Your task to perform on an android device: check google app version Image 0: 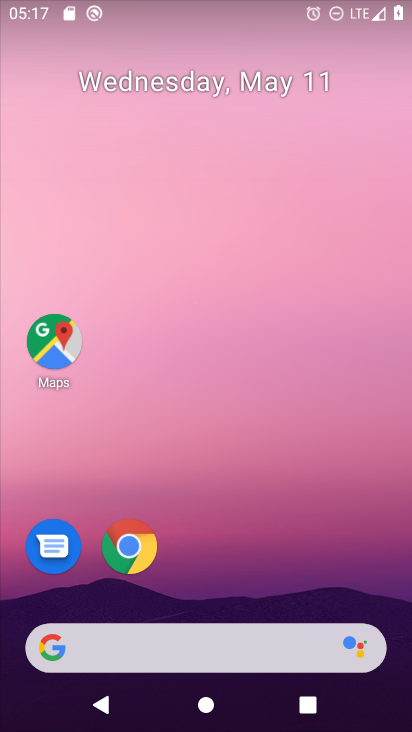
Step 0: drag from (320, 647) to (365, 4)
Your task to perform on an android device: check google app version Image 1: 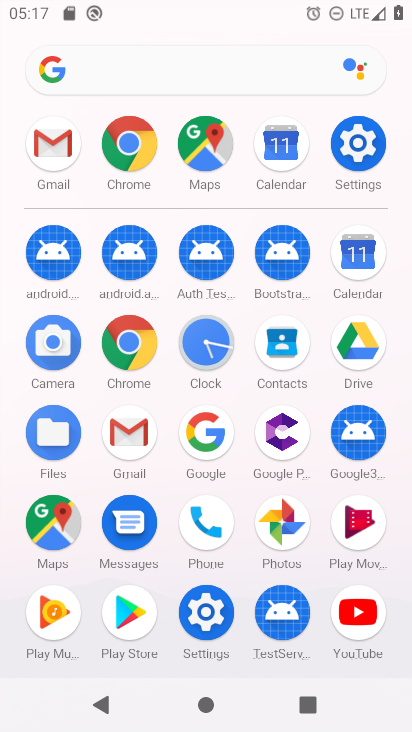
Step 1: click (357, 149)
Your task to perform on an android device: check google app version Image 2: 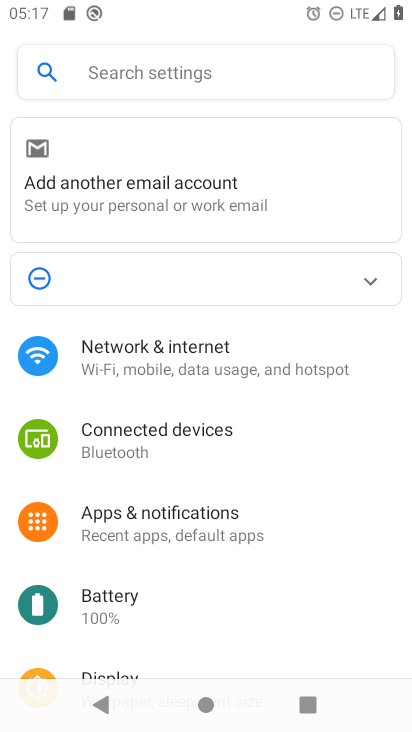
Step 2: drag from (298, 593) to (344, 198)
Your task to perform on an android device: check google app version Image 3: 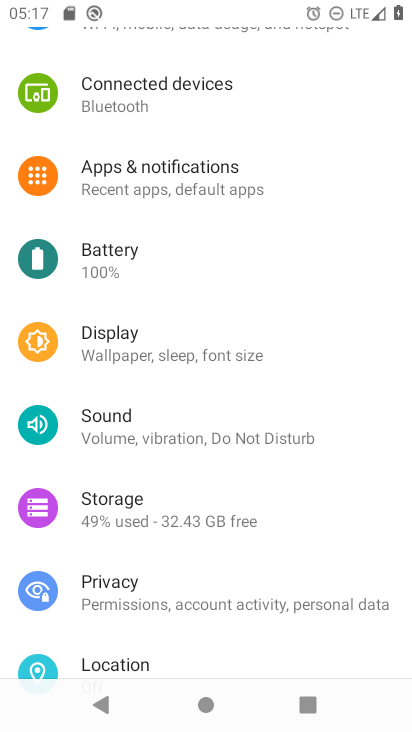
Step 3: press home button
Your task to perform on an android device: check google app version Image 4: 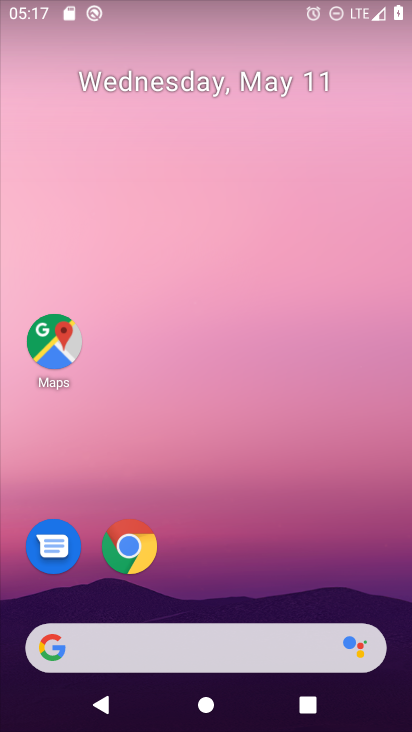
Step 4: drag from (276, 647) to (349, 4)
Your task to perform on an android device: check google app version Image 5: 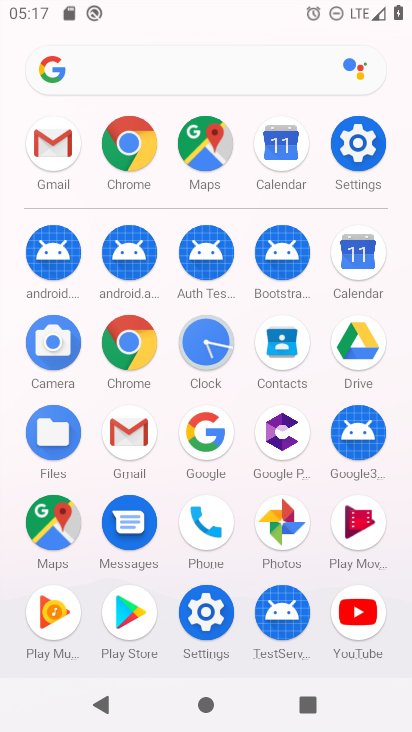
Step 5: click (126, 333)
Your task to perform on an android device: check google app version Image 6: 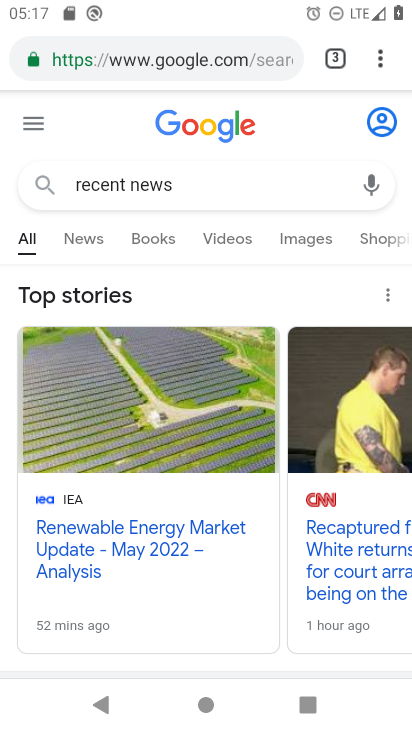
Step 6: click (378, 59)
Your task to perform on an android device: check google app version Image 7: 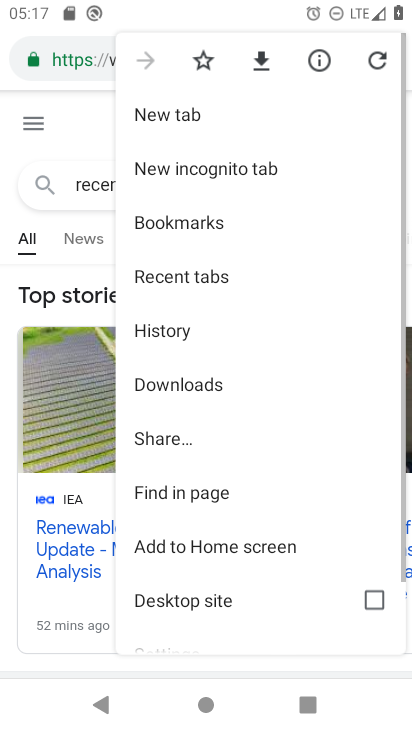
Step 7: drag from (231, 577) to (268, 122)
Your task to perform on an android device: check google app version Image 8: 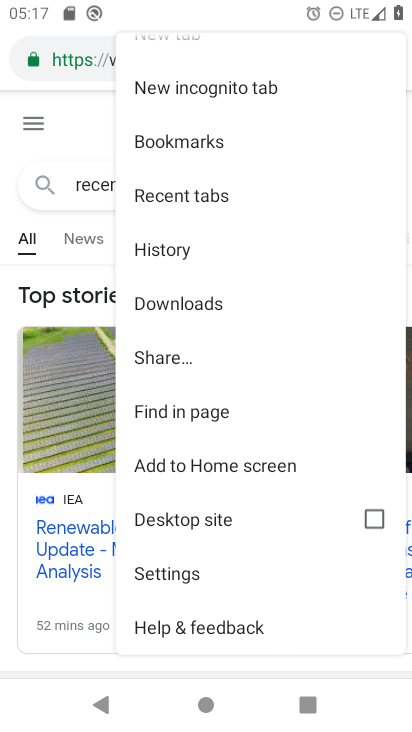
Step 8: click (151, 577)
Your task to perform on an android device: check google app version Image 9: 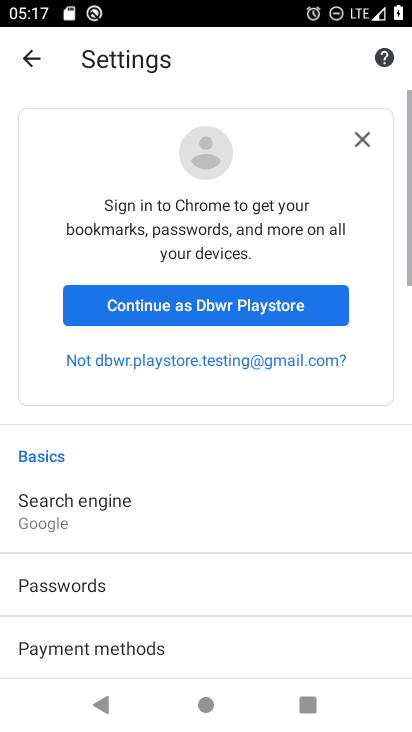
Step 9: drag from (151, 577) to (164, 48)
Your task to perform on an android device: check google app version Image 10: 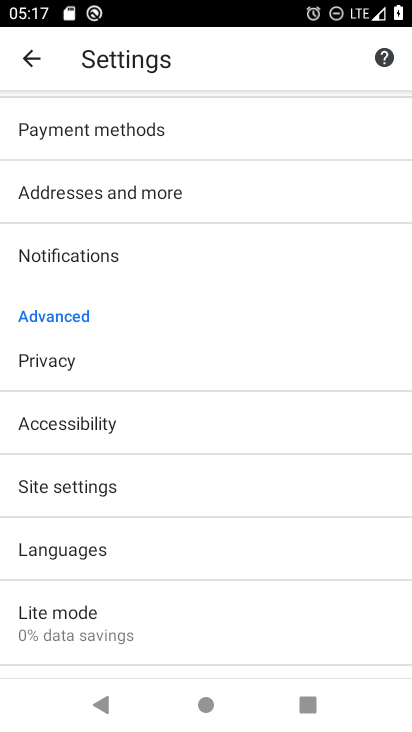
Step 10: drag from (287, 636) to (348, 43)
Your task to perform on an android device: check google app version Image 11: 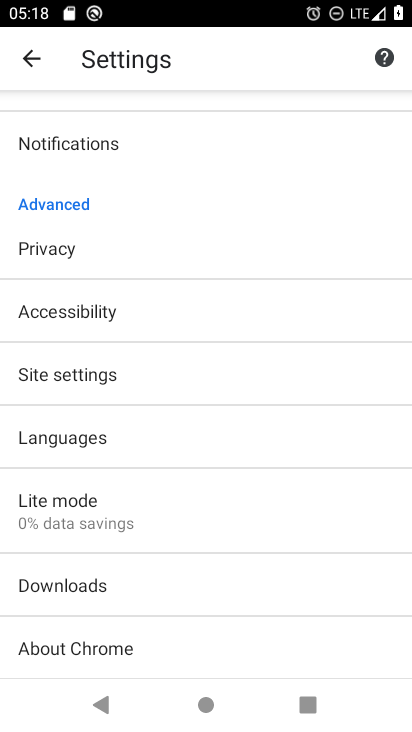
Step 11: press back button
Your task to perform on an android device: check google app version Image 12: 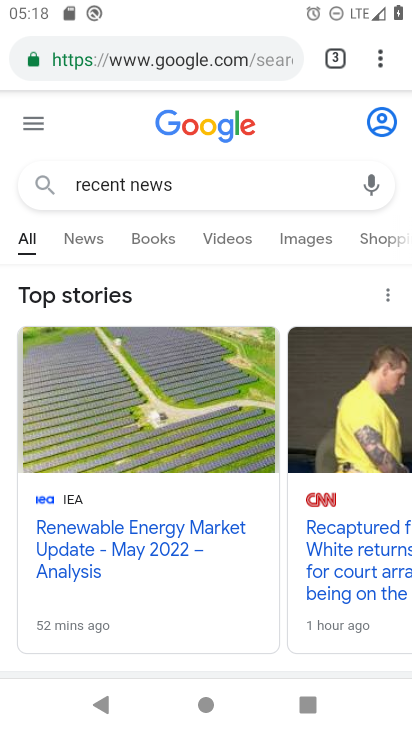
Step 12: click (375, 52)
Your task to perform on an android device: check google app version Image 13: 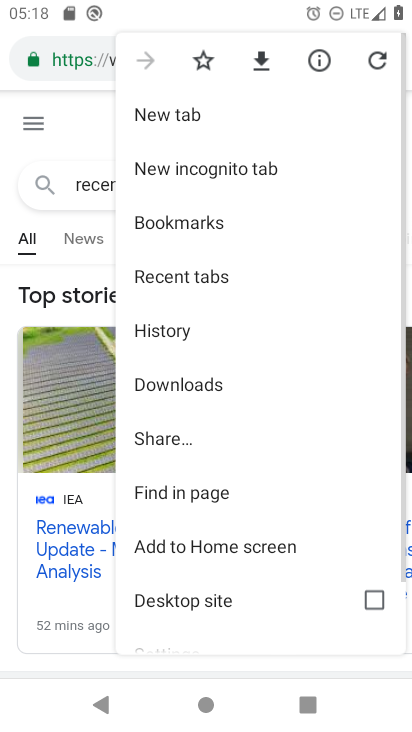
Step 13: drag from (255, 605) to (380, 63)
Your task to perform on an android device: check google app version Image 14: 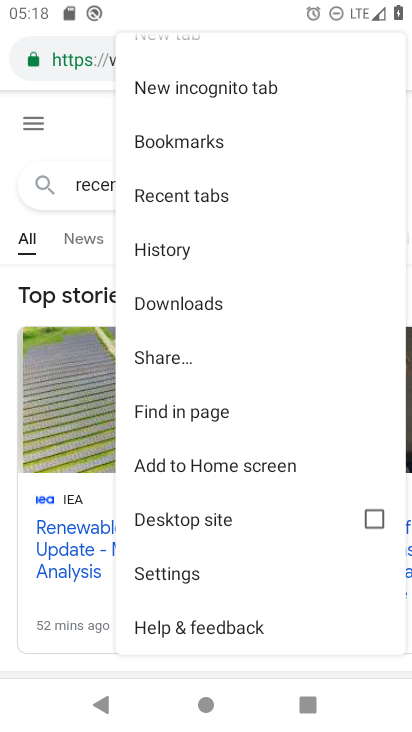
Step 14: click (291, 621)
Your task to perform on an android device: check google app version Image 15: 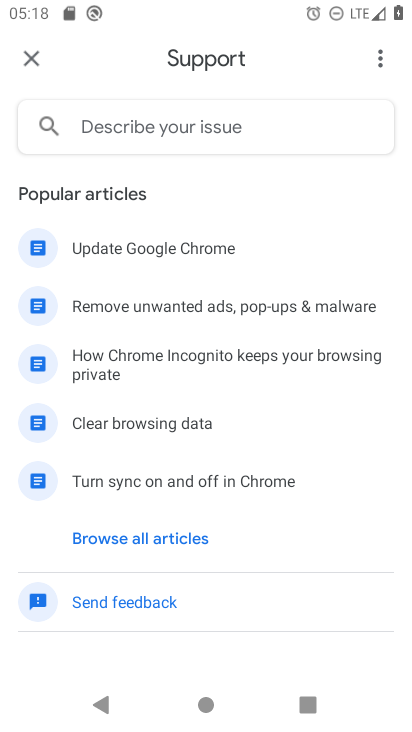
Step 15: drag from (189, 631) to (161, 146)
Your task to perform on an android device: check google app version Image 16: 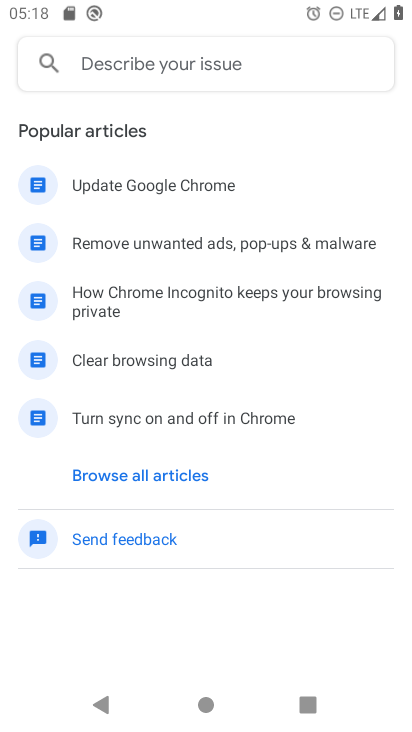
Step 16: drag from (346, 200) to (349, 547)
Your task to perform on an android device: check google app version Image 17: 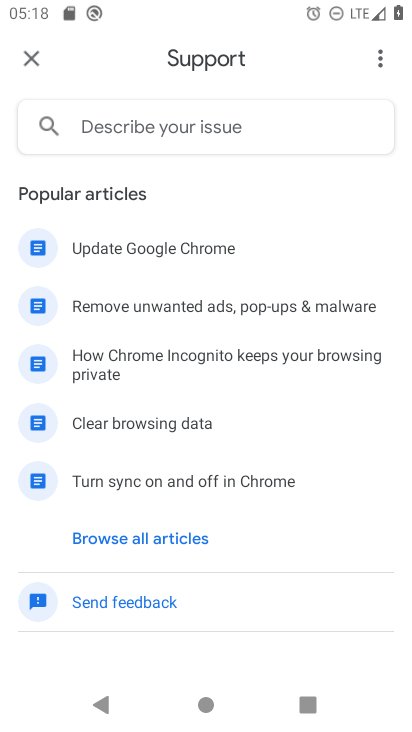
Step 17: click (382, 46)
Your task to perform on an android device: check google app version Image 18: 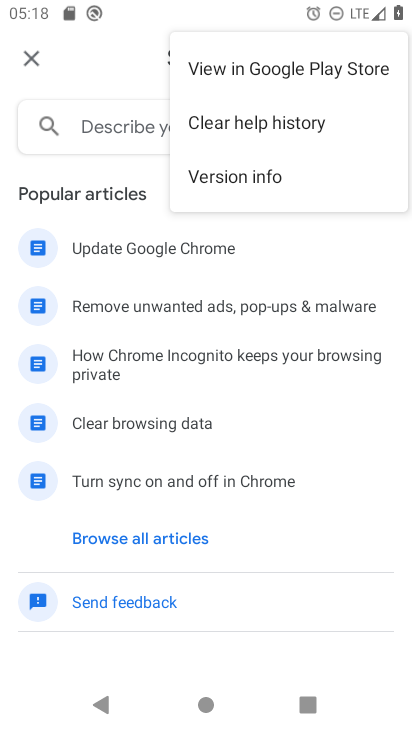
Step 18: click (234, 176)
Your task to perform on an android device: check google app version Image 19: 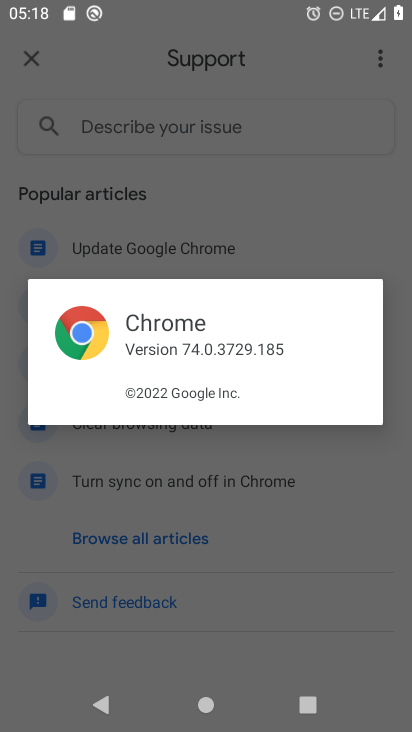
Step 19: task complete